Your task to perform on an android device: toggle priority inbox in the gmail app Image 0: 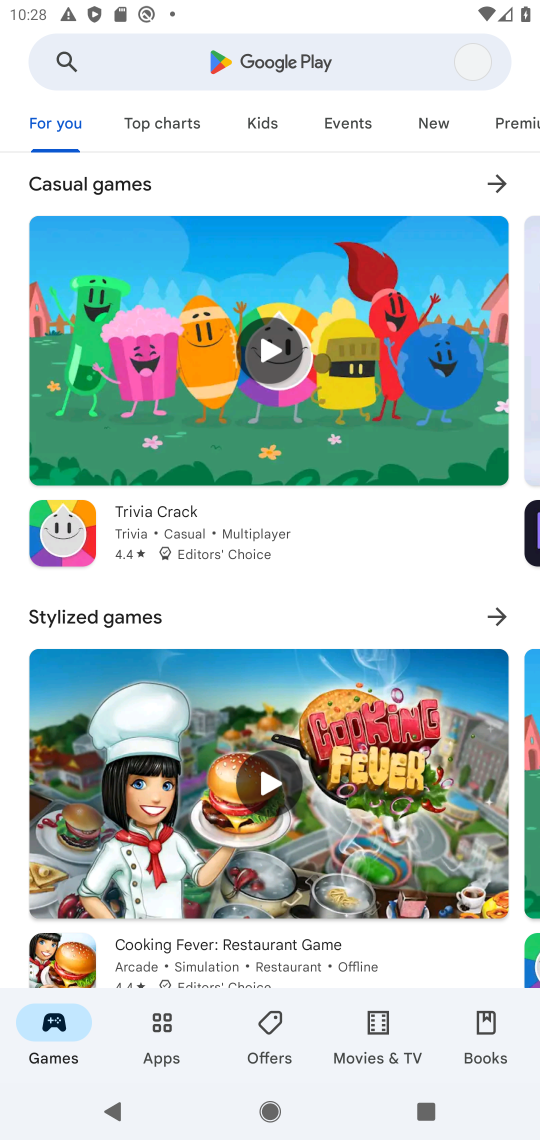
Step 0: press home button
Your task to perform on an android device: toggle priority inbox in the gmail app Image 1: 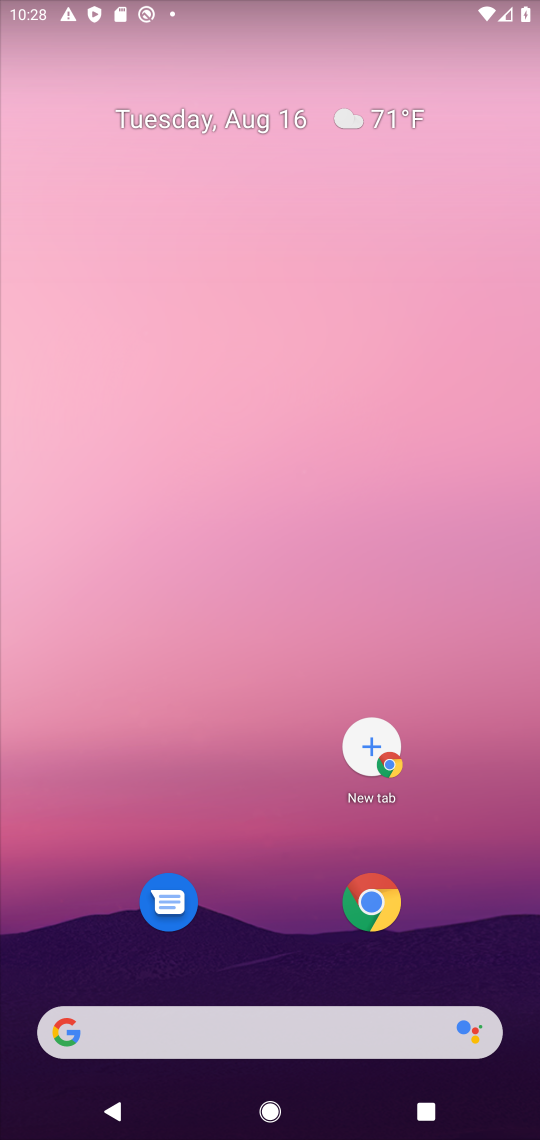
Step 1: drag from (275, 1014) to (244, 119)
Your task to perform on an android device: toggle priority inbox in the gmail app Image 2: 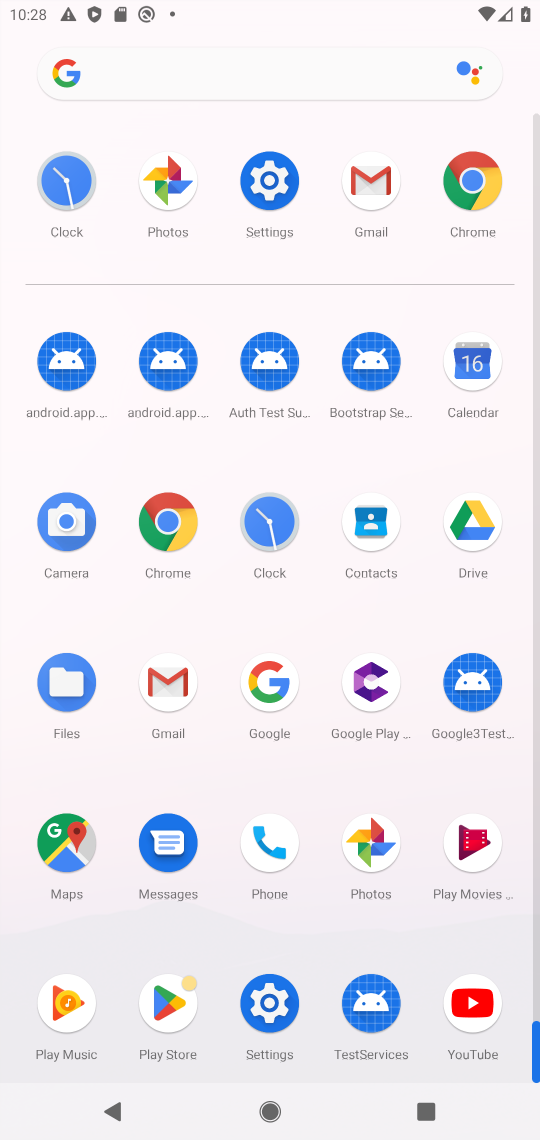
Step 2: click (179, 673)
Your task to perform on an android device: toggle priority inbox in the gmail app Image 3: 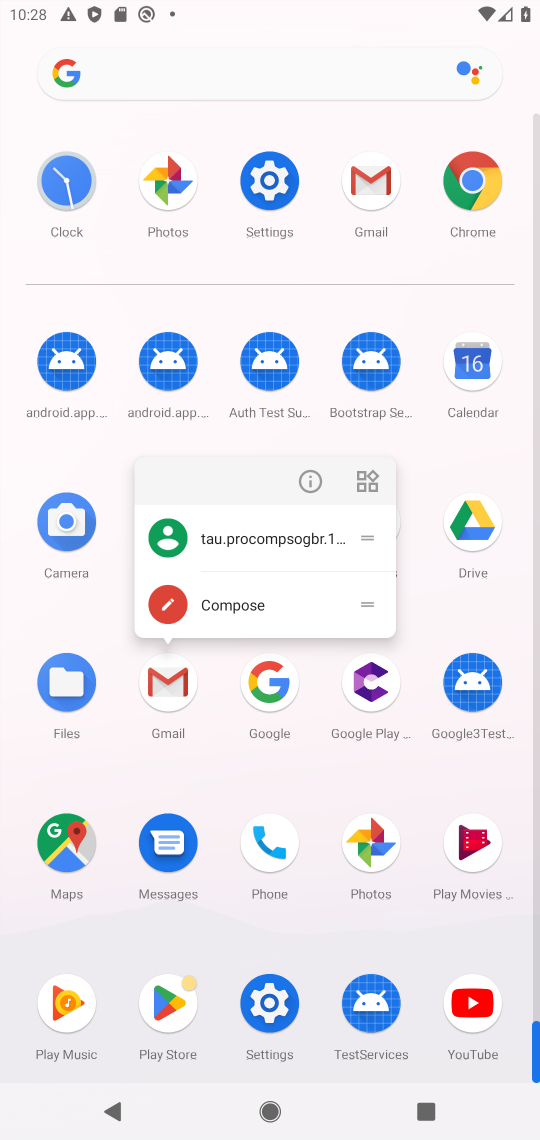
Step 3: click (158, 691)
Your task to perform on an android device: toggle priority inbox in the gmail app Image 4: 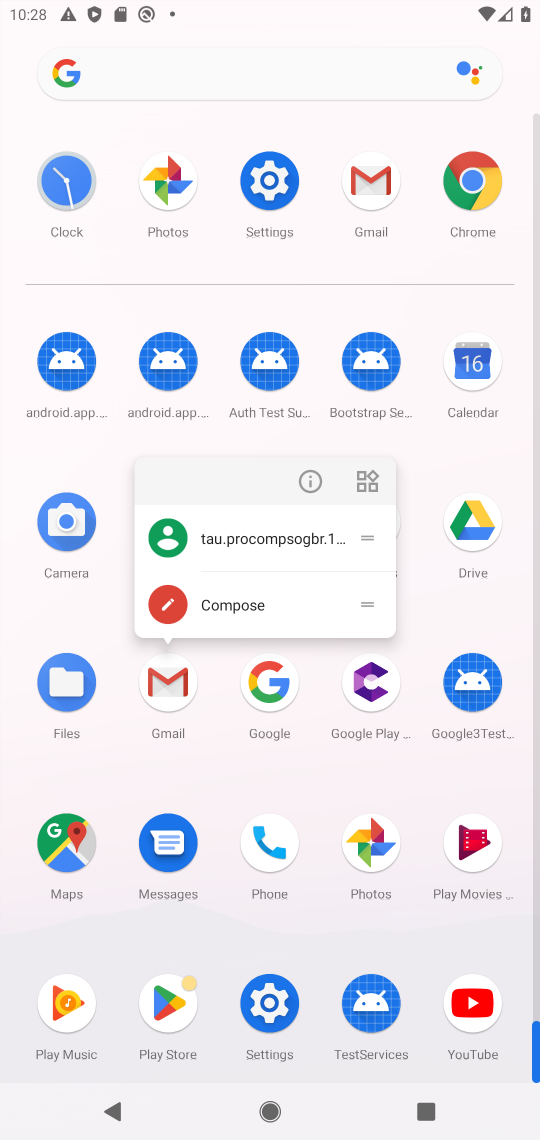
Step 4: click (166, 694)
Your task to perform on an android device: toggle priority inbox in the gmail app Image 5: 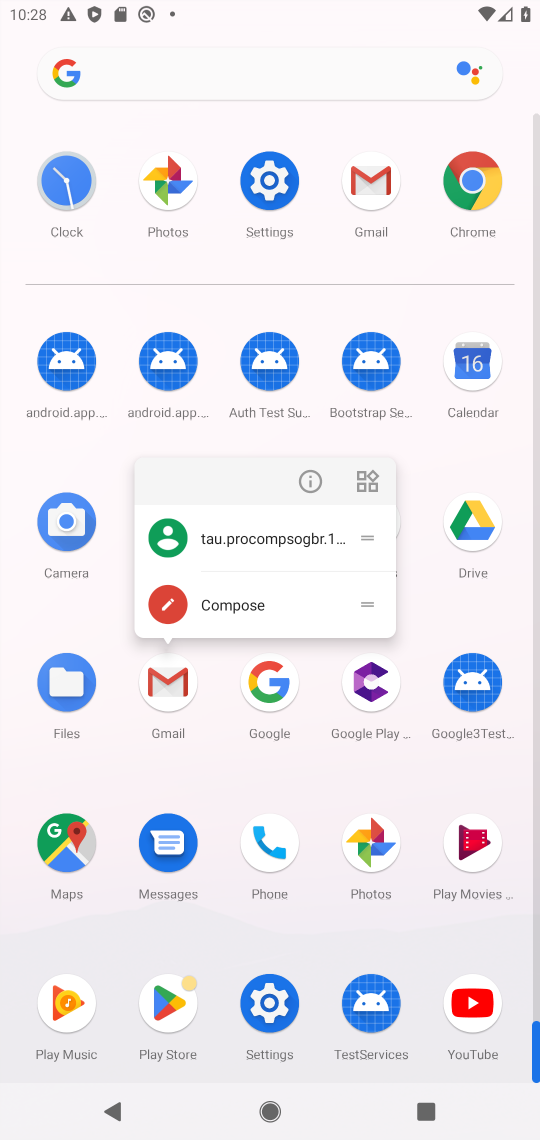
Step 5: click (162, 679)
Your task to perform on an android device: toggle priority inbox in the gmail app Image 6: 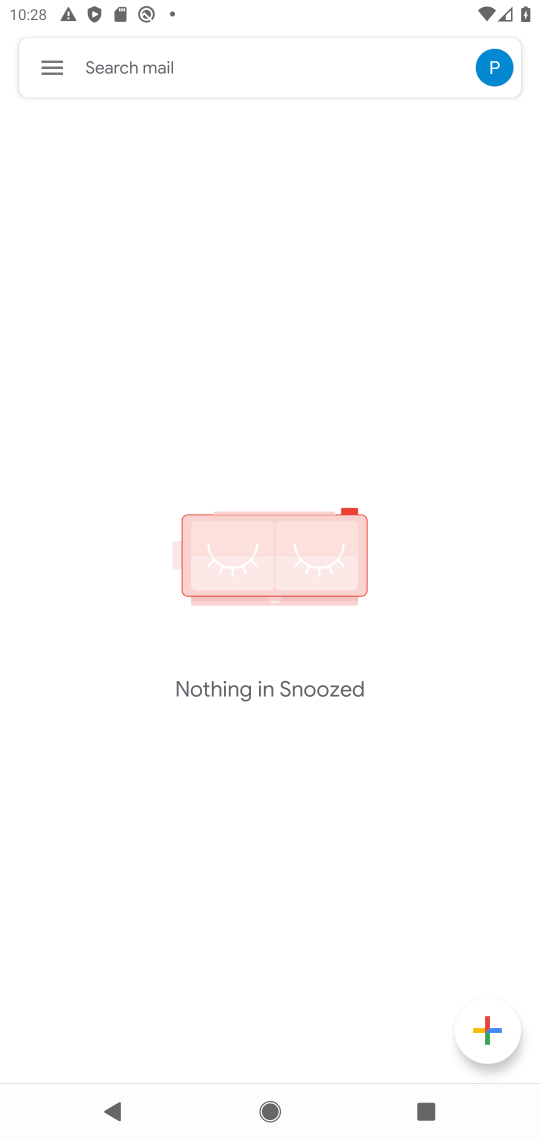
Step 6: click (57, 62)
Your task to perform on an android device: toggle priority inbox in the gmail app Image 7: 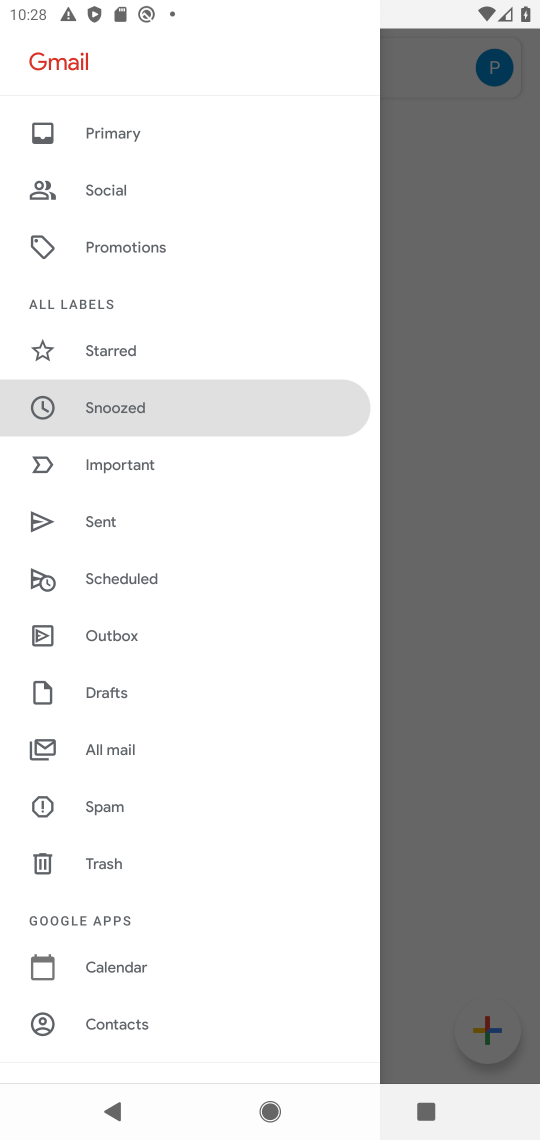
Step 7: drag from (120, 1021) to (57, 453)
Your task to perform on an android device: toggle priority inbox in the gmail app Image 8: 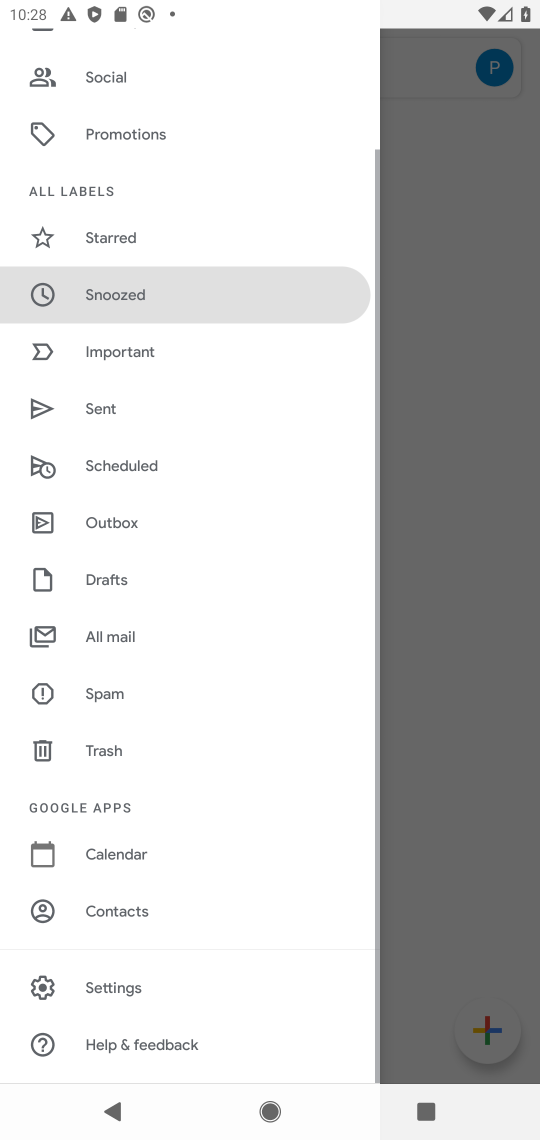
Step 8: click (91, 991)
Your task to perform on an android device: toggle priority inbox in the gmail app Image 9: 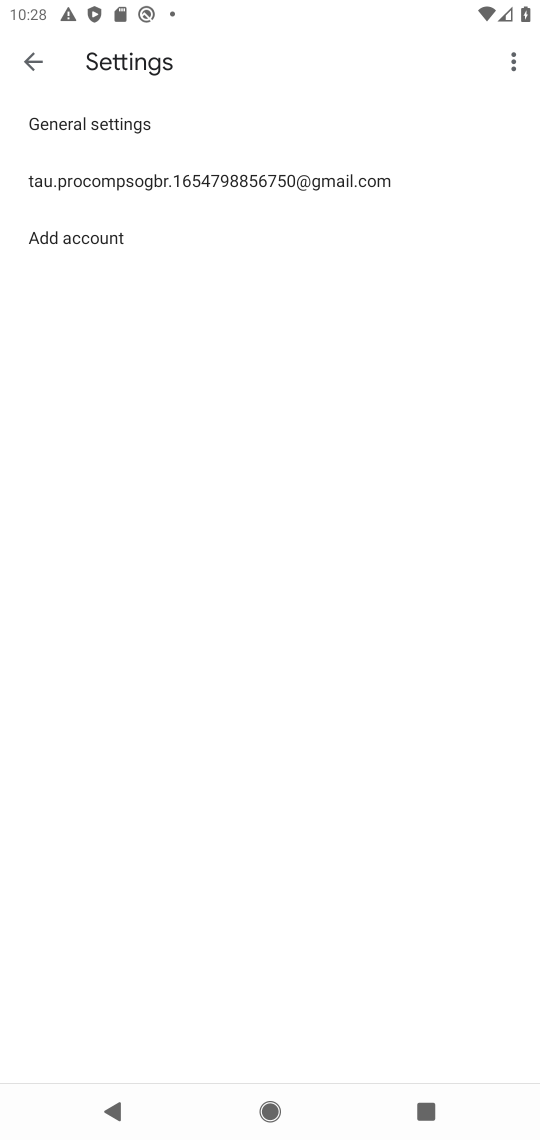
Step 9: click (149, 170)
Your task to perform on an android device: toggle priority inbox in the gmail app Image 10: 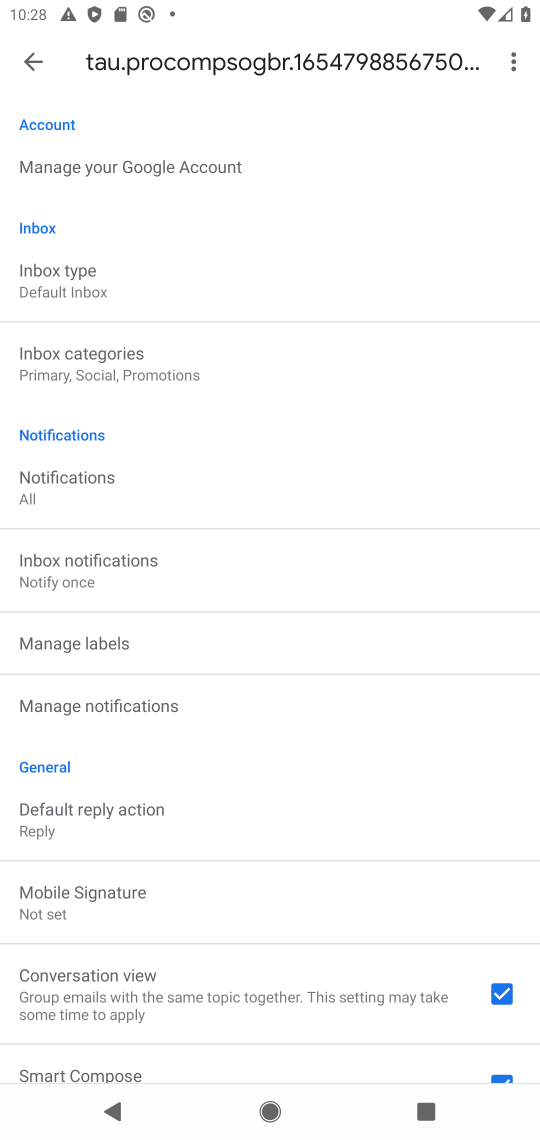
Step 10: click (48, 283)
Your task to perform on an android device: toggle priority inbox in the gmail app Image 11: 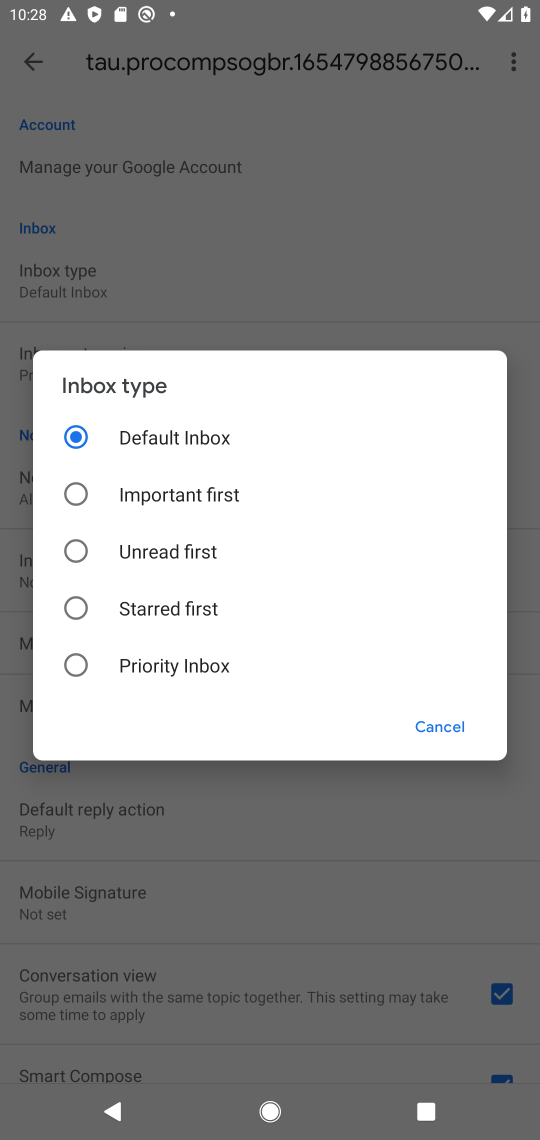
Step 11: click (133, 676)
Your task to perform on an android device: toggle priority inbox in the gmail app Image 12: 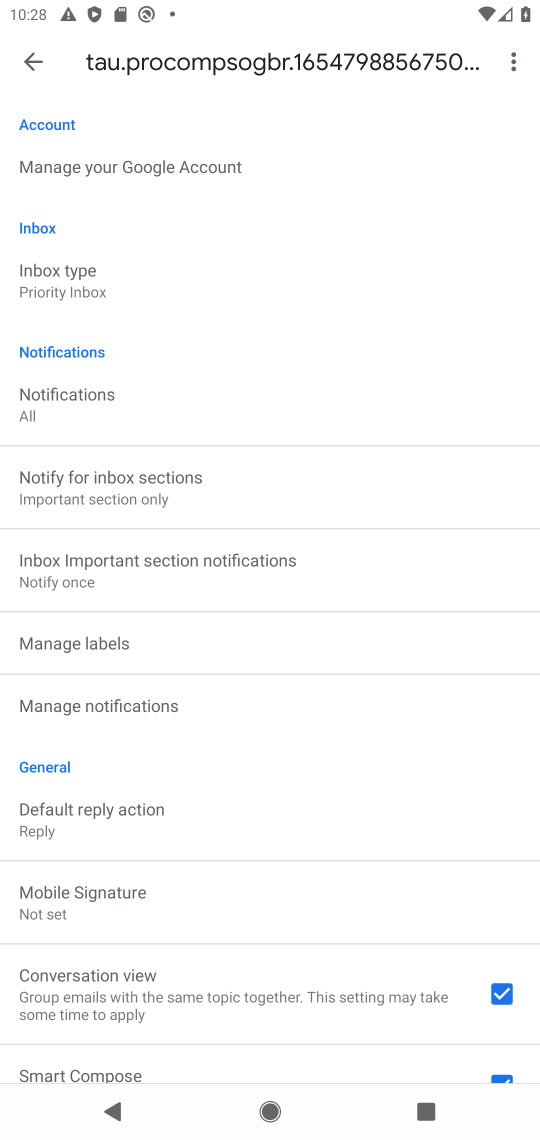
Step 12: task complete